Your task to perform on an android device: Open calendar and show me the second week of next month Image 0: 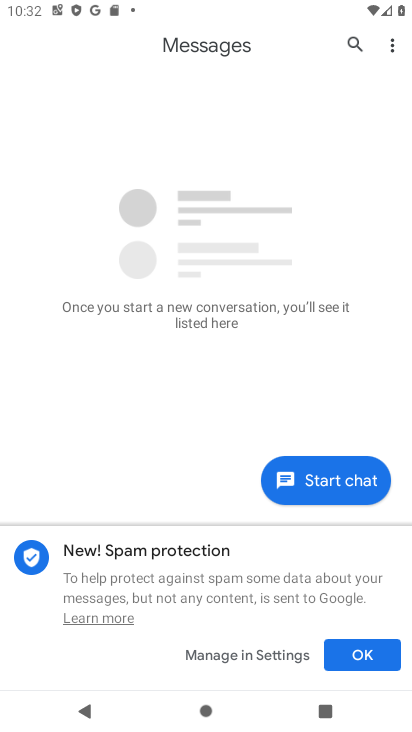
Step 0: press home button
Your task to perform on an android device: Open calendar and show me the second week of next month Image 1: 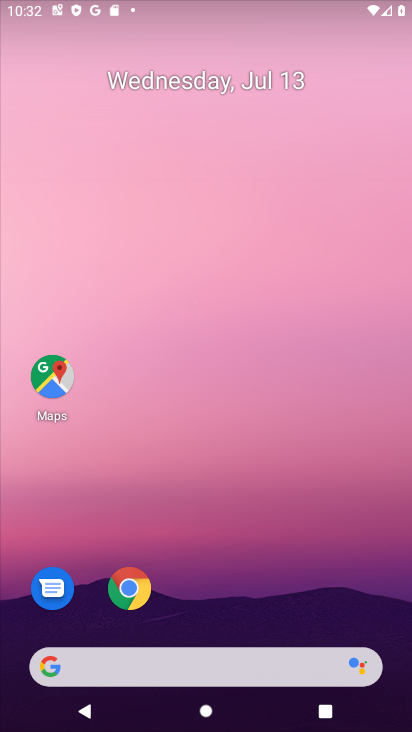
Step 1: drag from (242, 585) to (310, 14)
Your task to perform on an android device: Open calendar and show me the second week of next month Image 2: 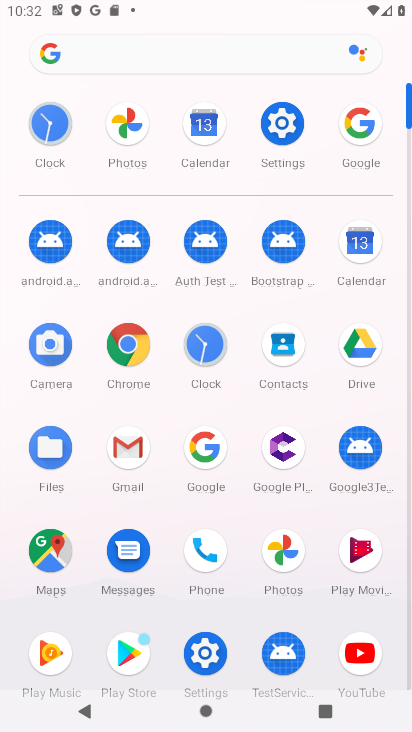
Step 2: click (359, 241)
Your task to perform on an android device: Open calendar and show me the second week of next month Image 3: 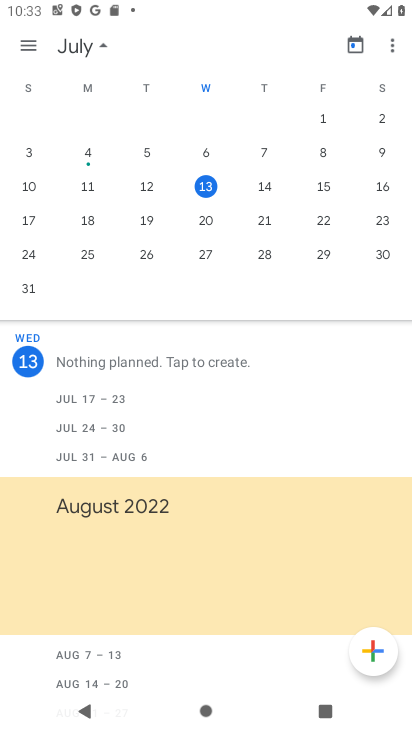
Step 3: task complete